Your task to perform on an android device: Go to ESPN.com Image 0: 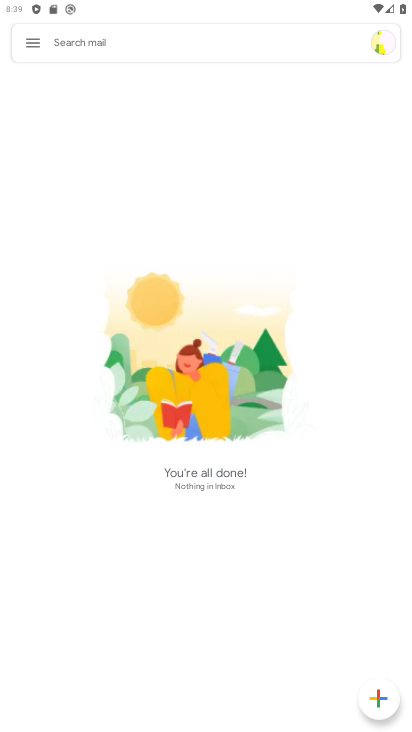
Step 0: press home button
Your task to perform on an android device: Go to ESPN.com Image 1: 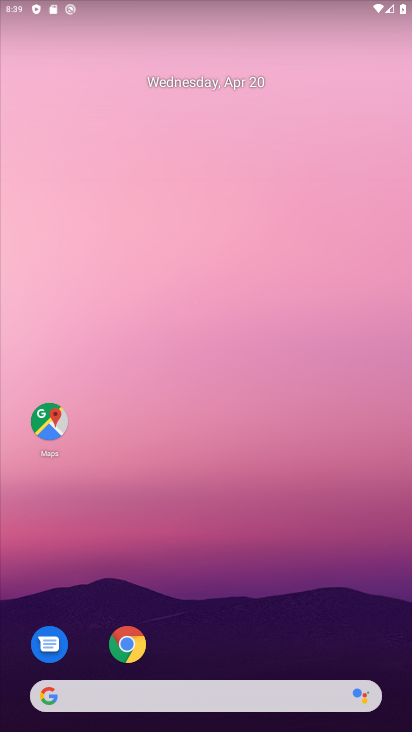
Step 1: click (124, 645)
Your task to perform on an android device: Go to ESPN.com Image 2: 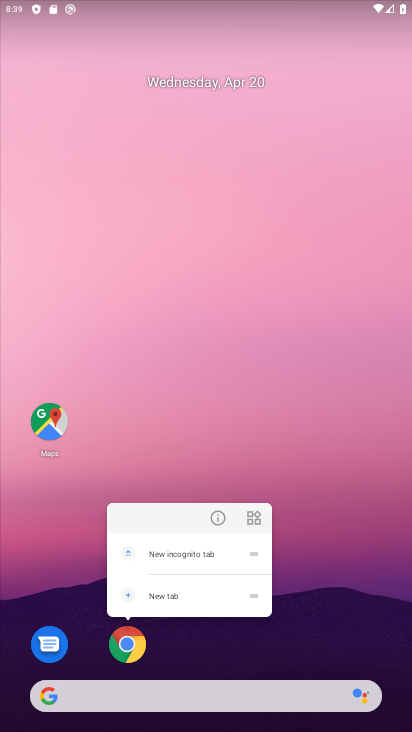
Step 2: click (124, 645)
Your task to perform on an android device: Go to ESPN.com Image 3: 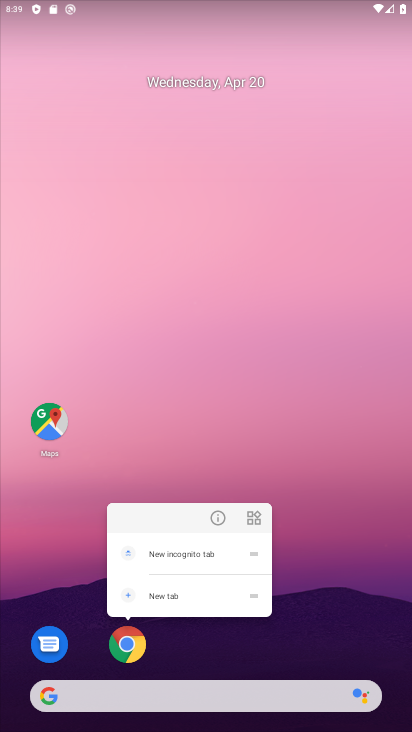
Step 3: click (134, 650)
Your task to perform on an android device: Go to ESPN.com Image 4: 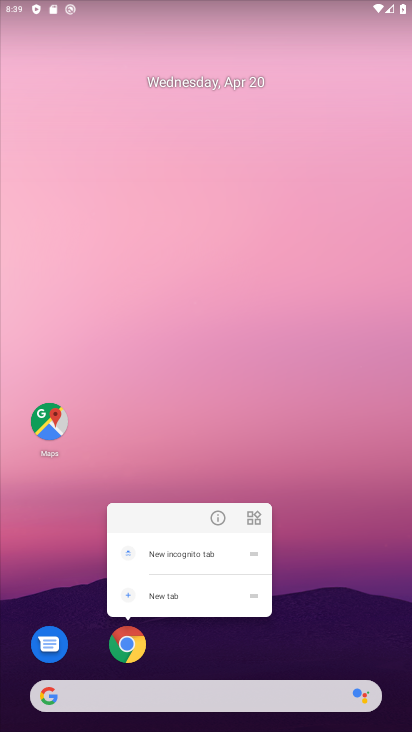
Step 4: click (126, 647)
Your task to perform on an android device: Go to ESPN.com Image 5: 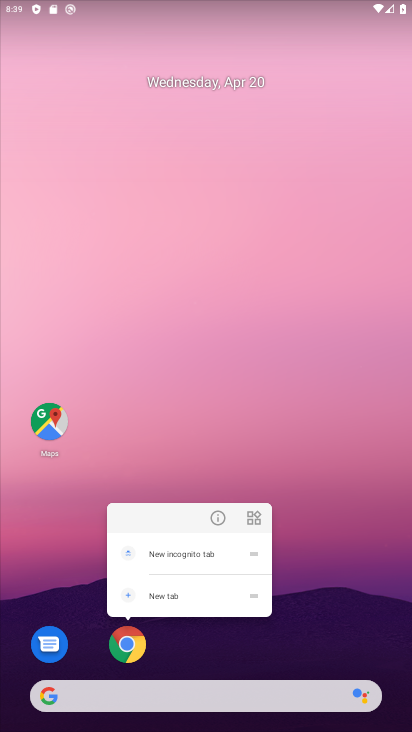
Step 5: click (126, 650)
Your task to perform on an android device: Go to ESPN.com Image 6: 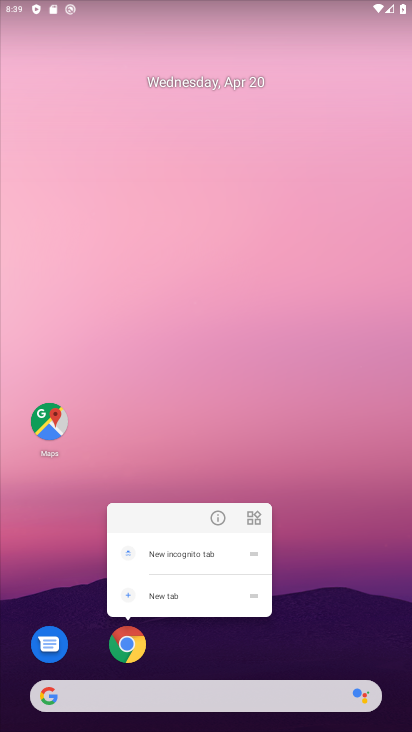
Step 6: click (126, 650)
Your task to perform on an android device: Go to ESPN.com Image 7: 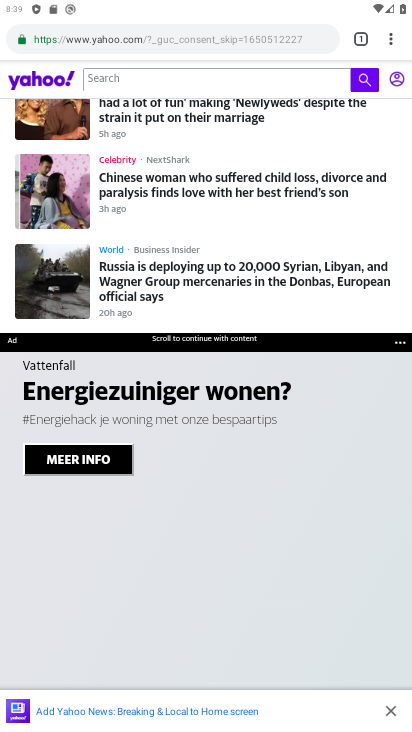
Step 7: click (363, 39)
Your task to perform on an android device: Go to ESPN.com Image 8: 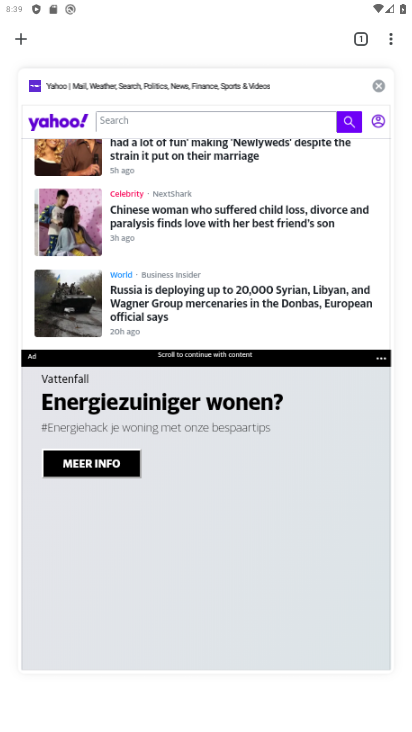
Step 8: click (372, 92)
Your task to perform on an android device: Go to ESPN.com Image 9: 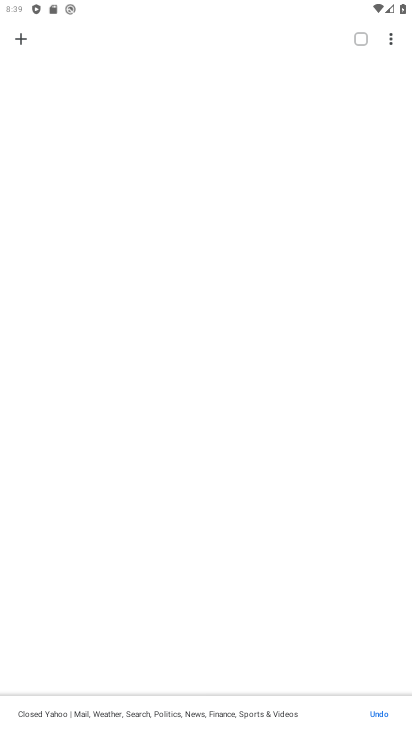
Step 9: click (18, 40)
Your task to perform on an android device: Go to ESPN.com Image 10: 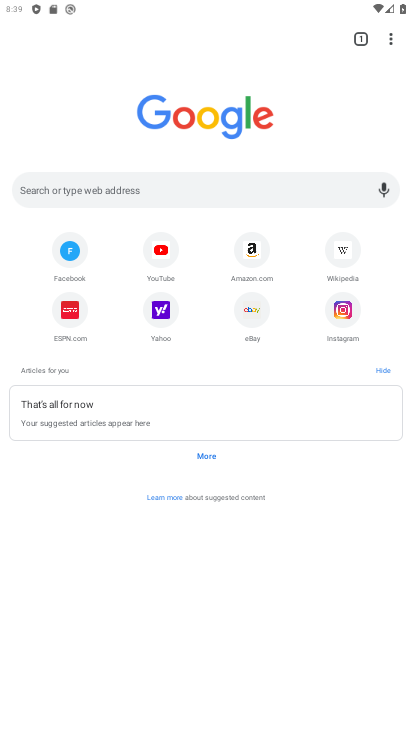
Step 10: click (68, 320)
Your task to perform on an android device: Go to ESPN.com Image 11: 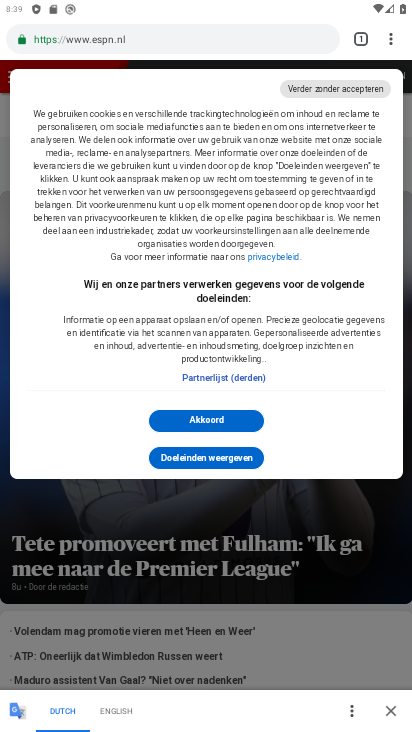
Step 11: task complete